Your task to perform on an android device: change keyboard looks Image 0: 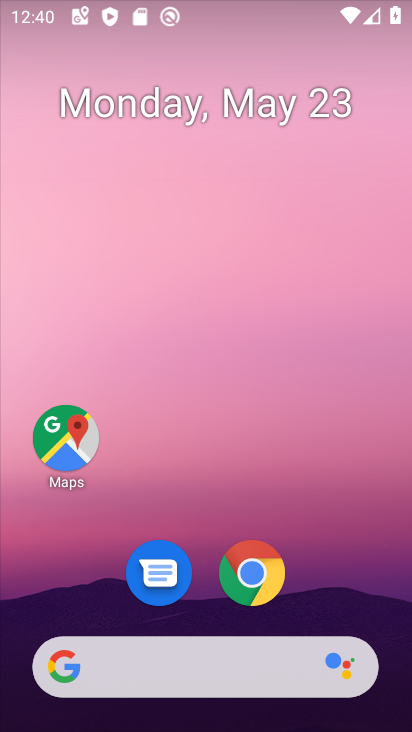
Step 0: drag from (225, 686) to (284, 100)
Your task to perform on an android device: change keyboard looks Image 1: 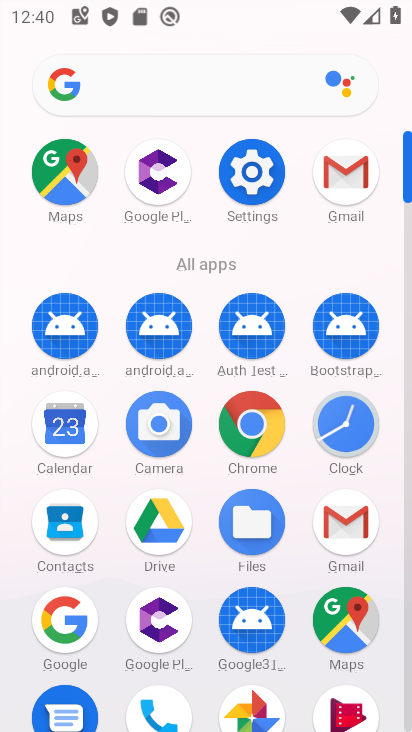
Step 1: click (243, 177)
Your task to perform on an android device: change keyboard looks Image 2: 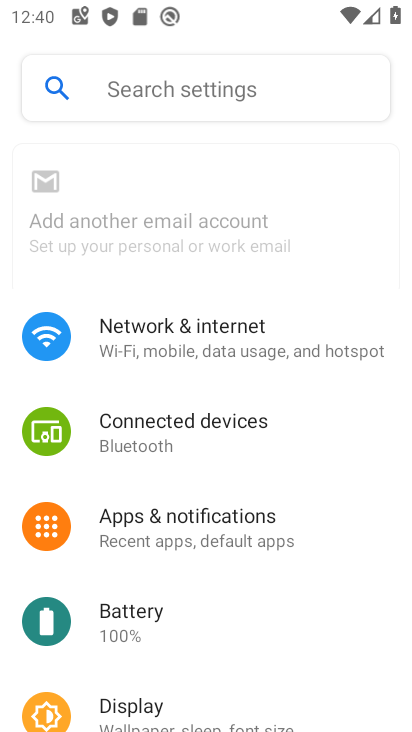
Step 2: drag from (338, 659) to (314, 76)
Your task to perform on an android device: change keyboard looks Image 3: 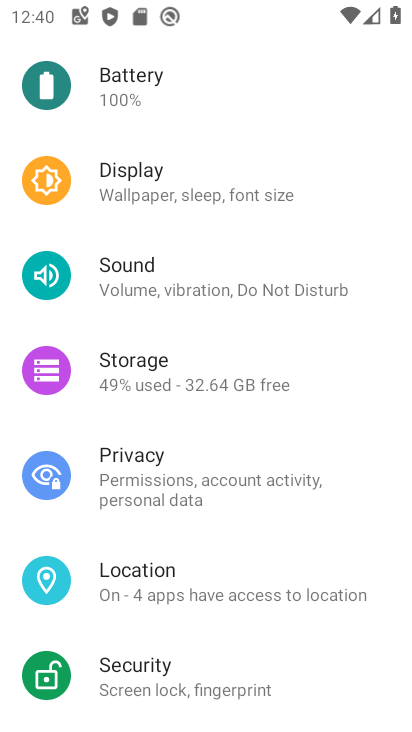
Step 3: click (305, 297)
Your task to perform on an android device: change keyboard looks Image 4: 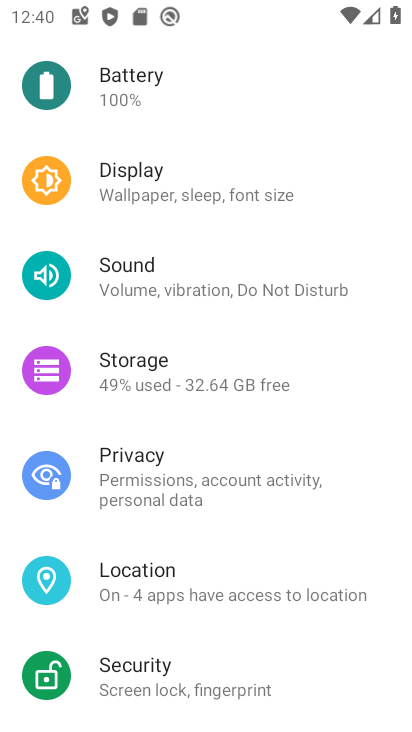
Step 4: drag from (211, 686) to (211, 249)
Your task to perform on an android device: change keyboard looks Image 5: 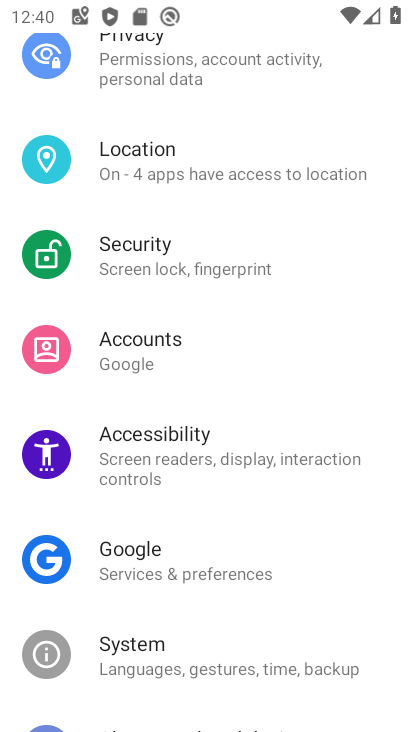
Step 5: drag from (150, 685) to (279, 229)
Your task to perform on an android device: change keyboard looks Image 6: 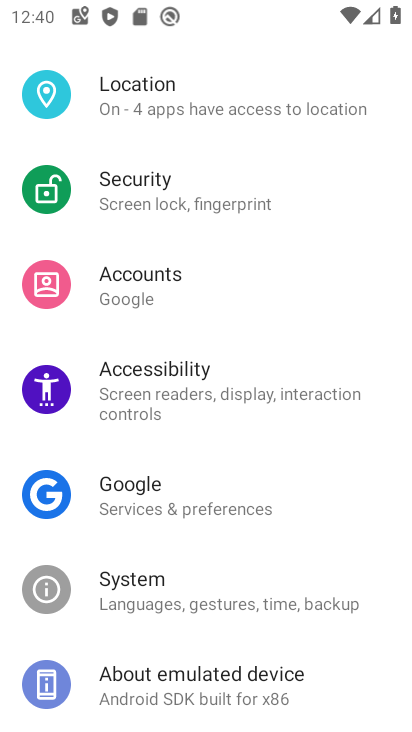
Step 6: click (208, 585)
Your task to perform on an android device: change keyboard looks Image 7: 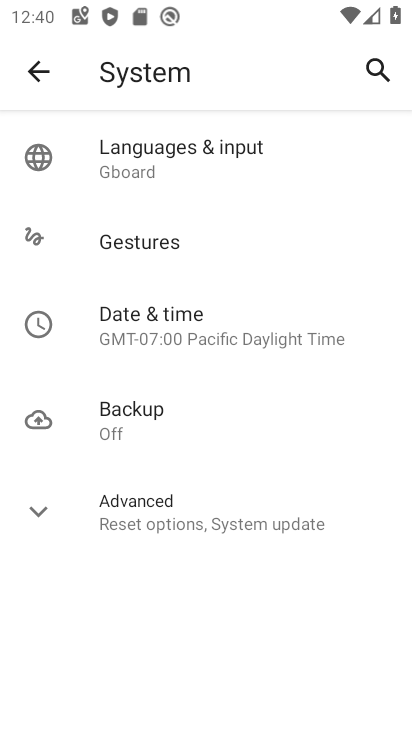
Step 7: click (219, 143)
Your task to perform on an android device: change keyboard looks Image 8: 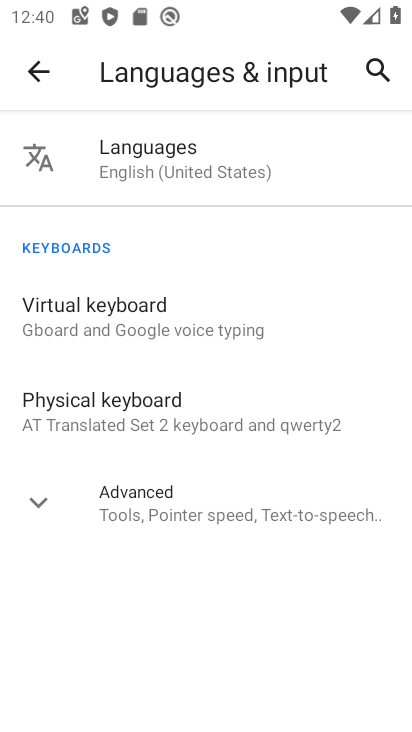
Step 8: click (122, 332)
Your task to perform on an android device: change keyboard looks Image 9: 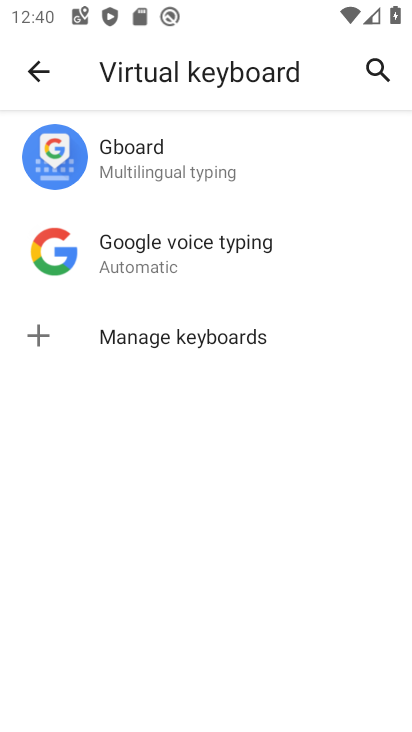
Step 9: click (197, 161)
Your task to perform on an android device: change keyboard looks Image 10: 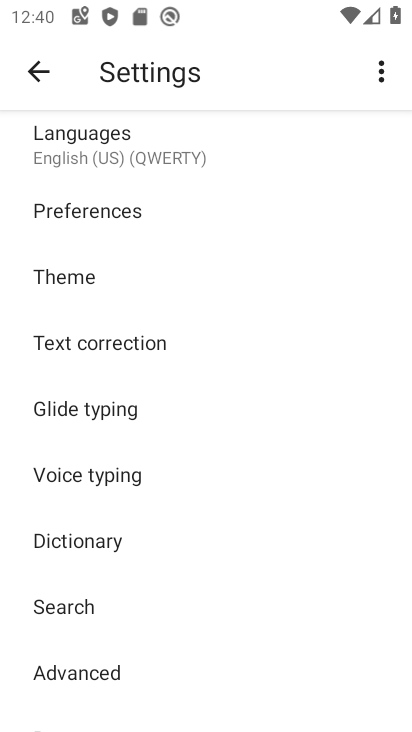
Step 10: drag from (97, 273) to (58, 243)
Your task to perform on an android device: change keyboard looks Image 11: 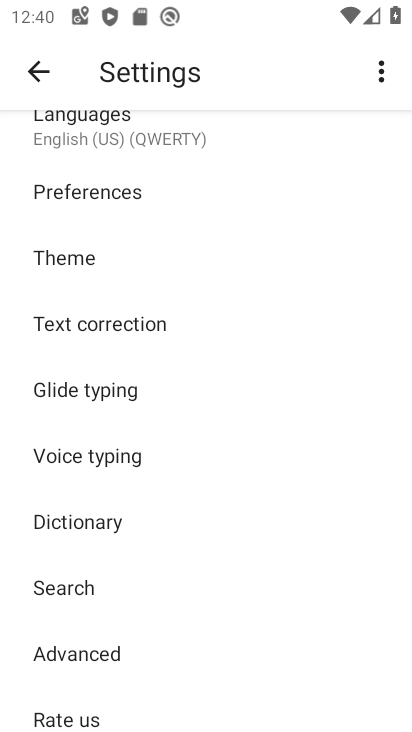
Step 11: click (78, 262)
Your task to perform on an android device: change keyboard looks Image 12: 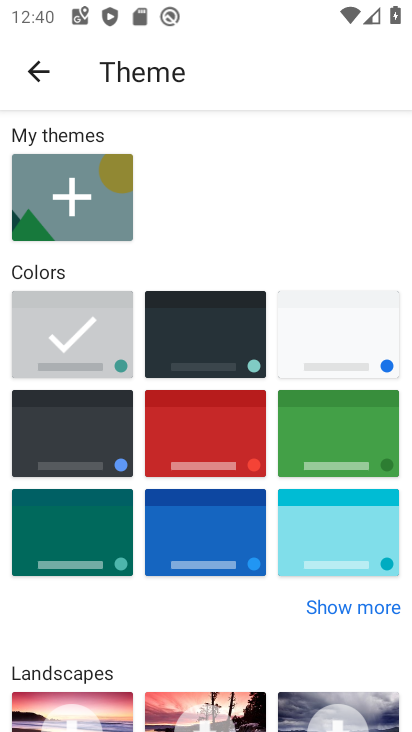
Step 12: click (96, 543)
Your task to perform on an android device: change keyboard looks Image 13: 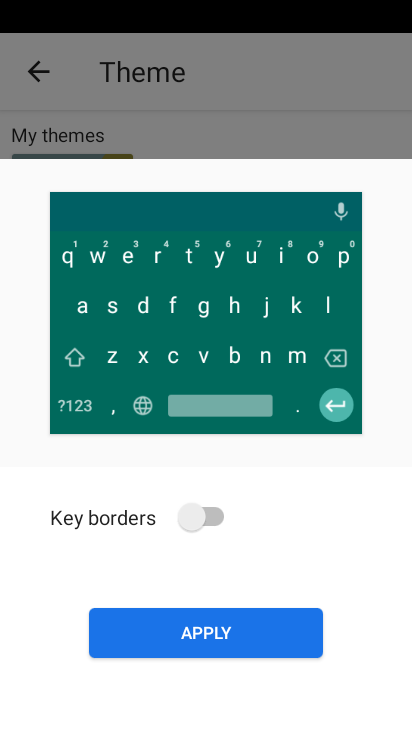
Step 13: click (212, 620)
Your task to perform on an android device: change keyboard looks Image 14: 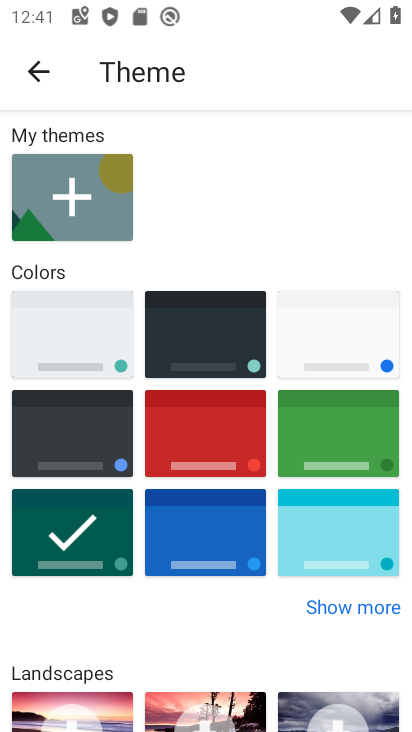
Step 14: task complete